Your task to perform on an android device: Turn off the flashlight Image 0: 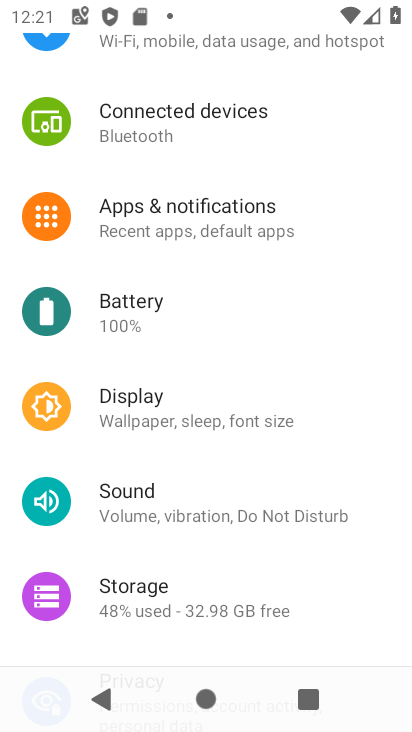
Step 0: drag from (238, 7) to (193, 486)
Your task to perform on an android device: Turn off the flashlight Image 1: 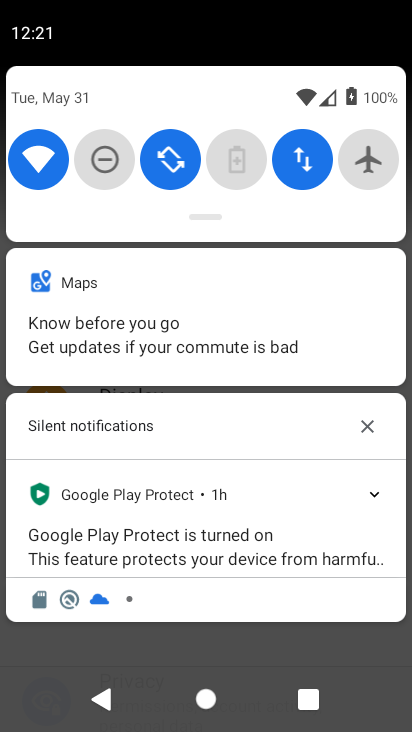
Step 1: task complete